Your task to perform on an android device: toggle translation in the chrome app Image 0: 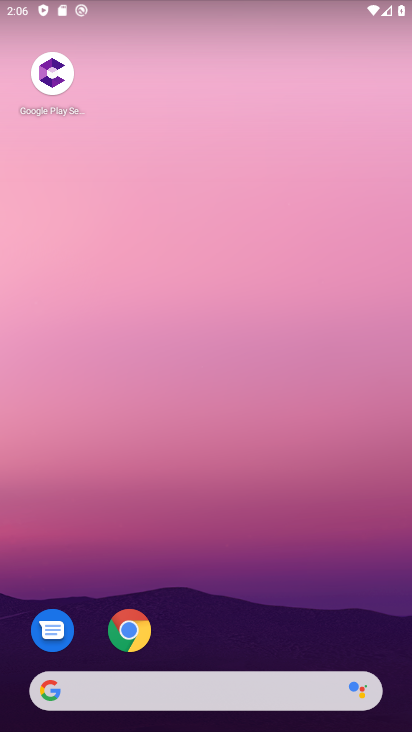
Step 0: click (128, 630)
Your task to perform on an android device: toggle translation in the chrome app Image 1: 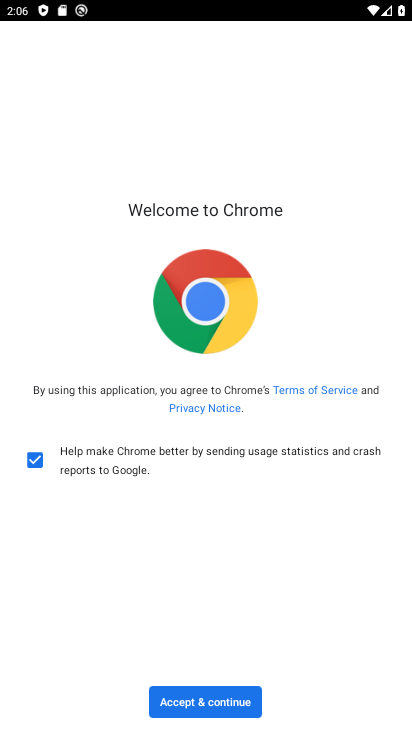
Step 1: click (197, 703)
Your task to perform on an android device: toggle translation in the chrome app Image 2: 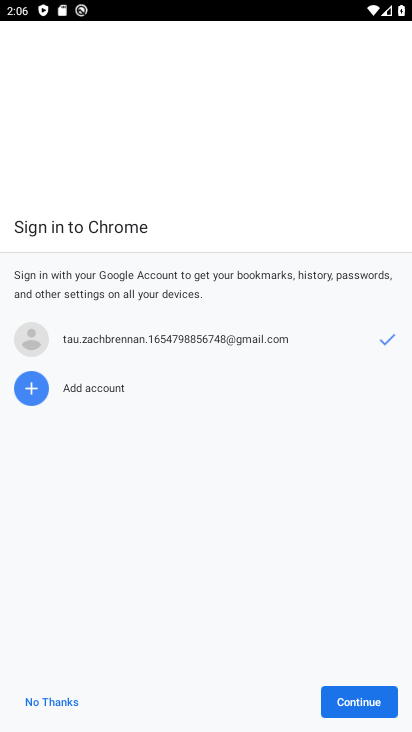
Step 2: click (355, 699)
Your task to perform on an android device: toggle translation in the chrome app Image 3: 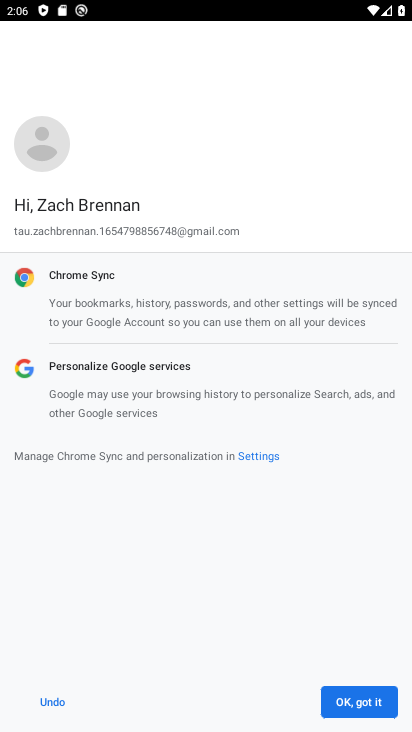
Step 3: click (362, 701)
Your task to perform on an android device: toggle translation in the chrome app Image 4: 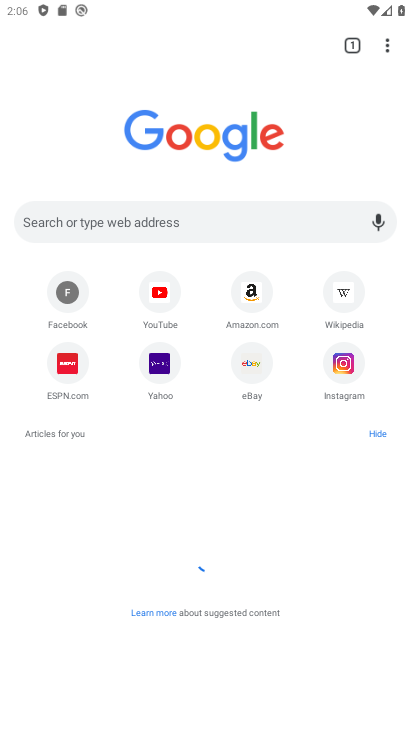
Step 4: click (386, 50)
Your task to perform on an android device: toggle translation in the chrome app Image 5: 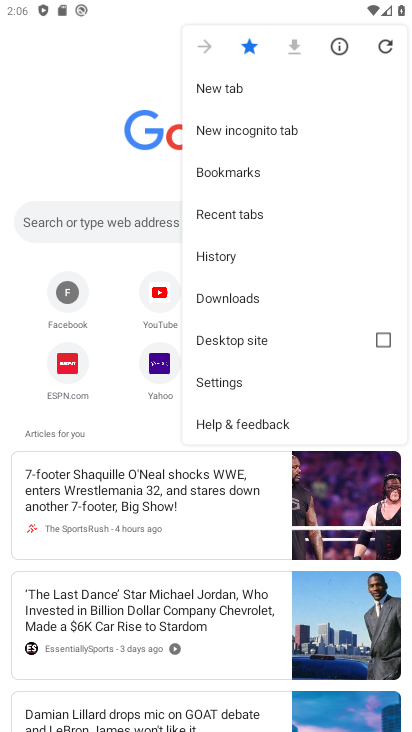
Step 5: click (229, 380)
Your task to perform on an android device: toggle translation in the chrome app Image 6: 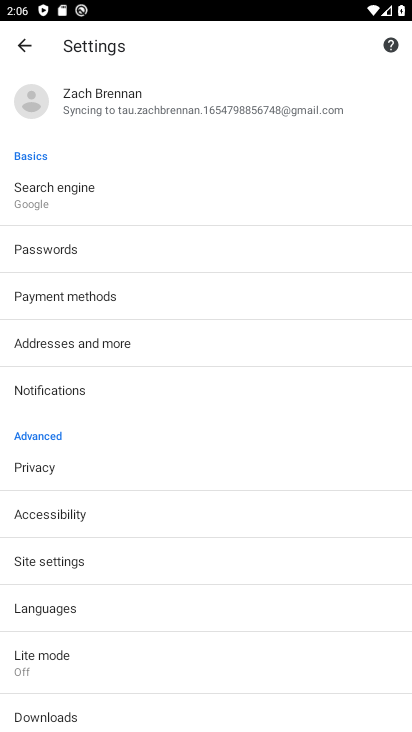
Step 6: click (47, 605)
Your task to perform on an android device: toggle translation in the chrome app Image 7: 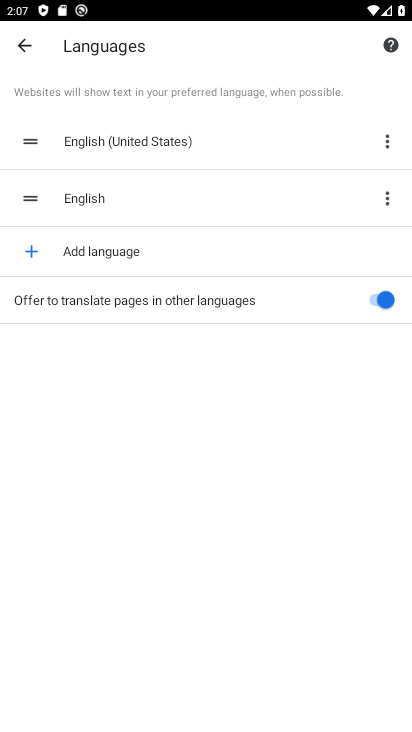
Step 7: click (370, 302)
Your task to perform on an android device: toggle translation in the chrome app Image 8: 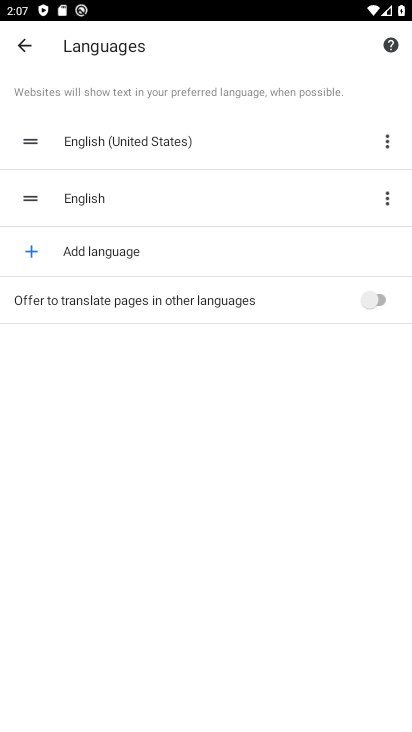
Step 8: task complete